Your task to perform on an android device: Show me popular games on the Play Store Image 0: 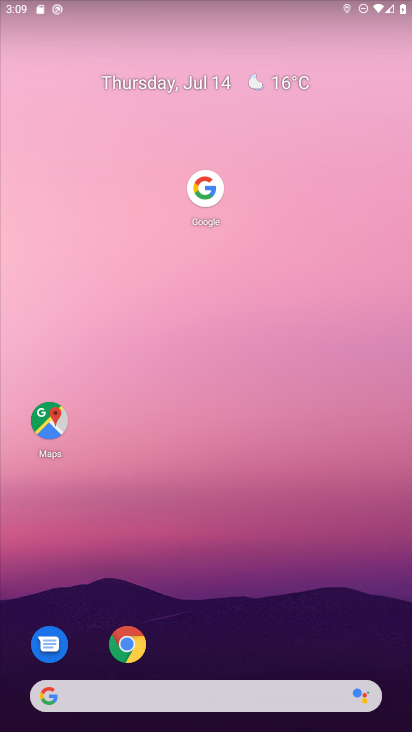
Step 0: drag from (192, 654) to (232, 173)
Your task to perform on an android device: Show me popular games on the Play Store Image 1: 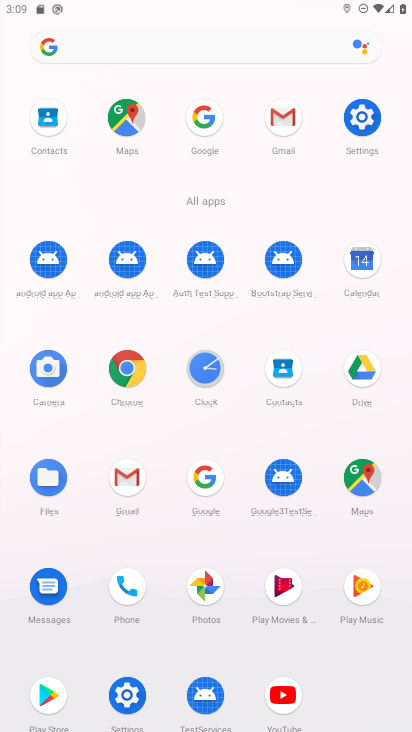
Step 1: click (42, 692)
Your task to perform on an android device: Show me popular games on the Play Store Image 2: 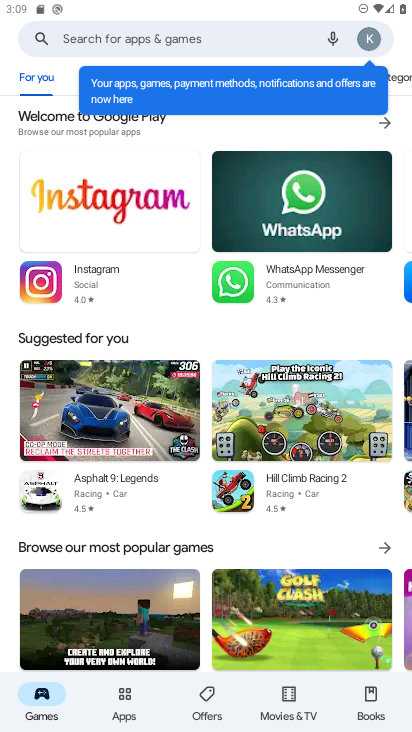
Step 2: click (186, 45)
Your task to perform on an android device: Show me popular games on the Play Store Image 3: 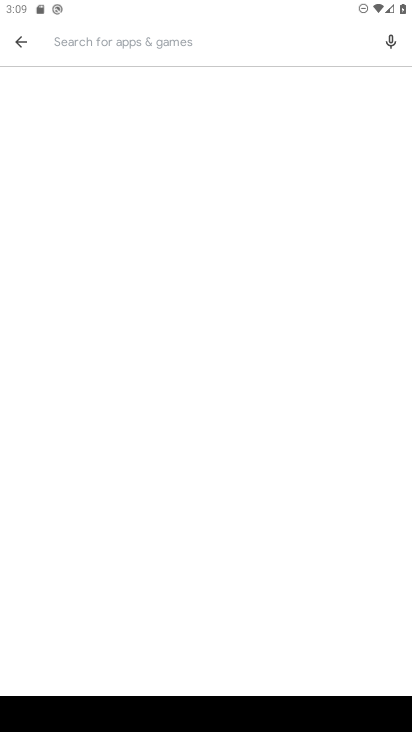
Step 3: click (14, 37)
Your task to perform on an android device: Show me popular games on the Play Store Image 4: 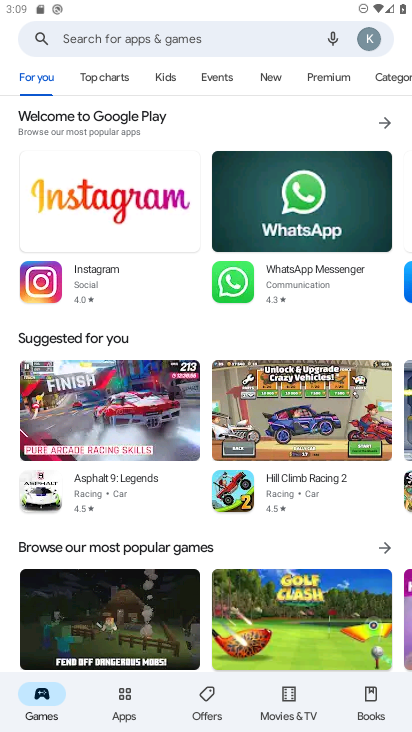
Step 4: click (111, 85)
Your task to perform on an android device: Show me popular games on the Play Store Image 5: 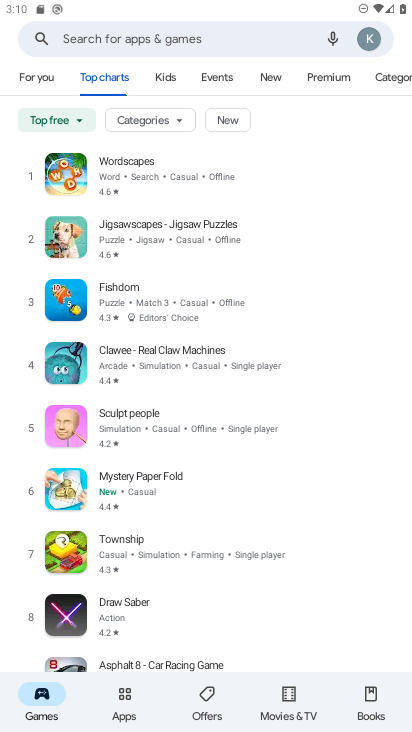
Step 5: task complete